Your task to perform on an android device: Search for "logitech g pro" on bestbuy.com, select the first entry, and add it to the cart. Image 0: 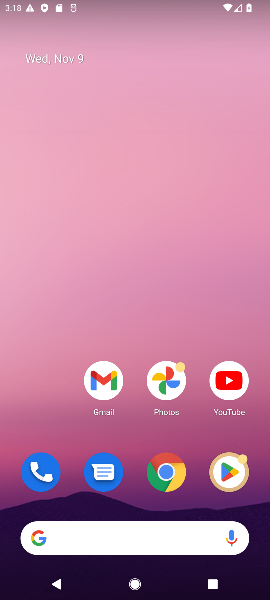
Step 0: click (89, 538)
Your task to perform on an android device: Search for "logitech g pro" on bestbuy.com, select the first entry, and add it to the cart. Image 1: 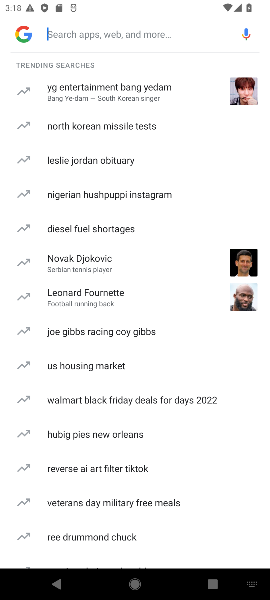
Step 1: type "bestbuy"
Your task to perform on an android device: Search for "logitech g pro" on bestbuy.com, select the first entry, and add it to the cart. Image 2: 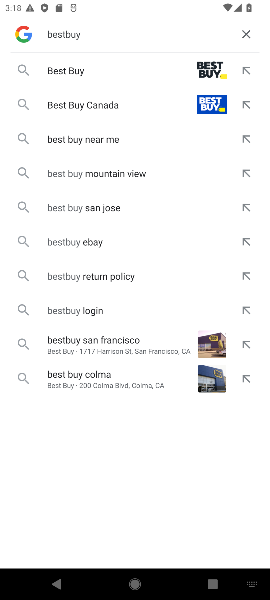
Step 2: click (75, 70)
Your task to perform on an android device: Search for "logitech g pro" on bestbuy.com, select the first entry, and add it to the cart. Image 3: 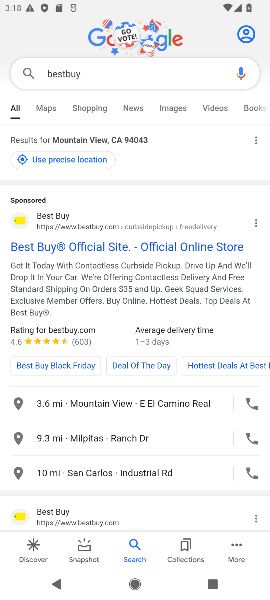
Step 3: click (46, 214)
Your task to perform on an android device: Search for "logitech g pro" on bestbuy.com, select the first entry, and add it to the cart. Image 4: 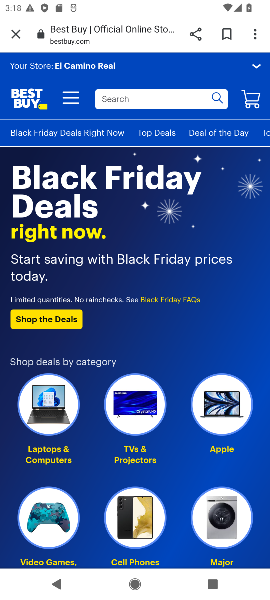
Step 4: click (112, 96)
Your task to perform on an android device: Search for "logitech g pro" on bestbuy.com, select the first entry, and add it to the cart. Image 5: 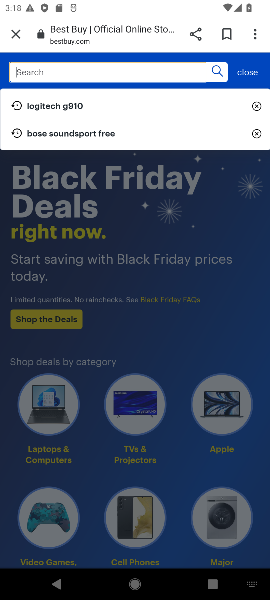
Step 5: type "logitech g pro"
Your task to perform on an android device: Search for "logitech g pro" on bestbuy.com, select the first entry, and add it to the cart. Image 6: 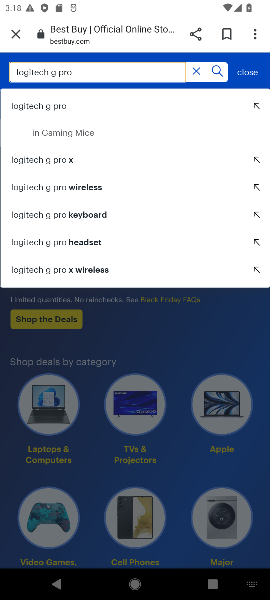
Step 6: click (57, 105)
Your task to perform on an android device: Search for "logitech g pro" on bestbuy.com, select the first entry, and add it to the cart. Image 7: 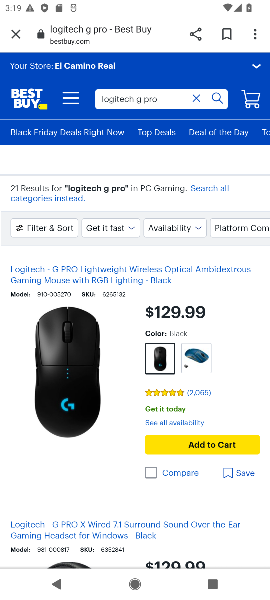
Step 7: click (194, 444)
Your task to perform on an android device: Search for "logitech g pro" on bestbuy.com, select the first entry, and add it to the cart. Image 8: 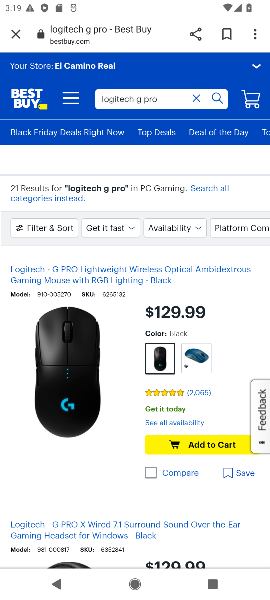
Step 8: click (179, 441)
Your task to perform on an android device: Search for "logitech g pro" on bestbuy.com, select the first entry, and add it to the cart. Image 9: 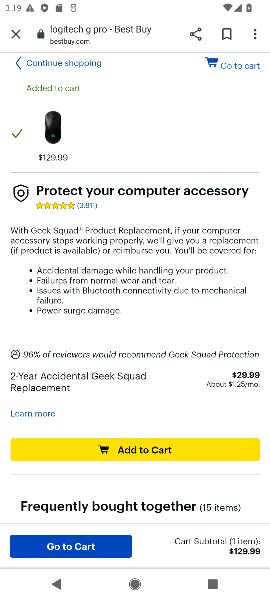
Step 9: click (76, 549)
Your task to perform on an android device: Search for "logitech g pro" on bestbuy.com, select the first entry, and add it to the cart. Image 10: 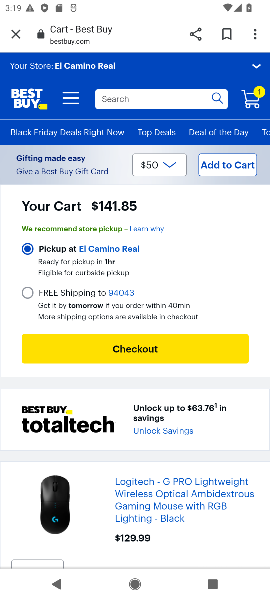
Step 10: task complete